Your task to perform on an android device: allow cookies in the chrome app Image 0: 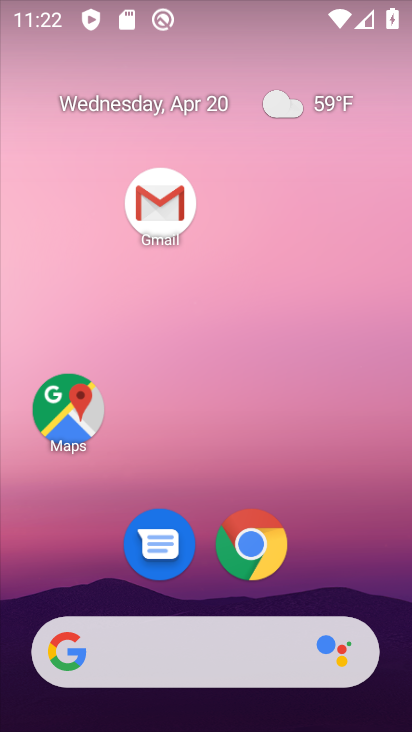
Step 0: click (268, 560)
Your task to perform on an android device: allow cookies in the chrome app Image 1: 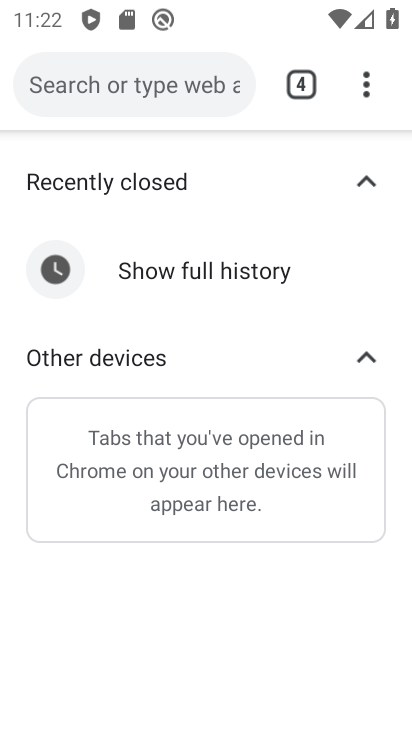
Step 1: click (379, 78)
Your task to perform on an android device: allow cookies in the chrome app Image 2: 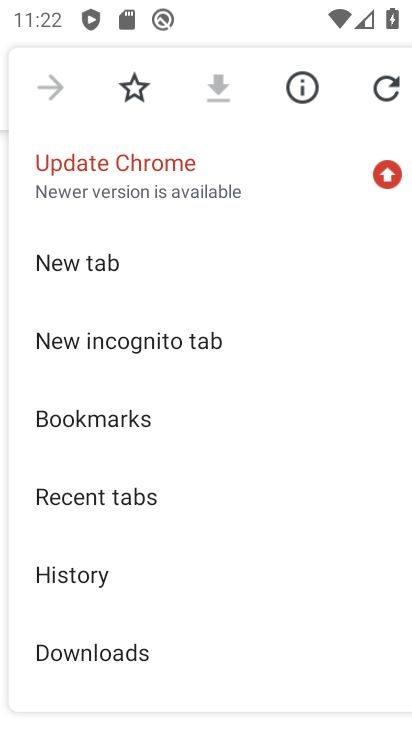
Step 2: drag from (235, 551) to (197, 67)
Your task to perform on an android device: allow cookies in the chrome app Image 3: 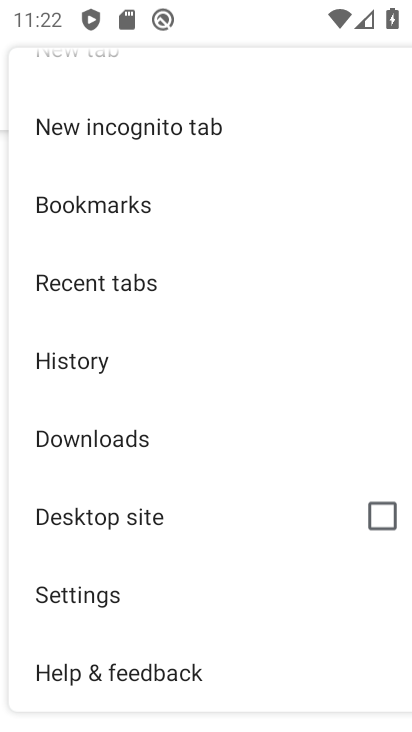
Step 3: click (131, 580)
Your task to perform on an android device: allow cookies in the chrome app Image 4: 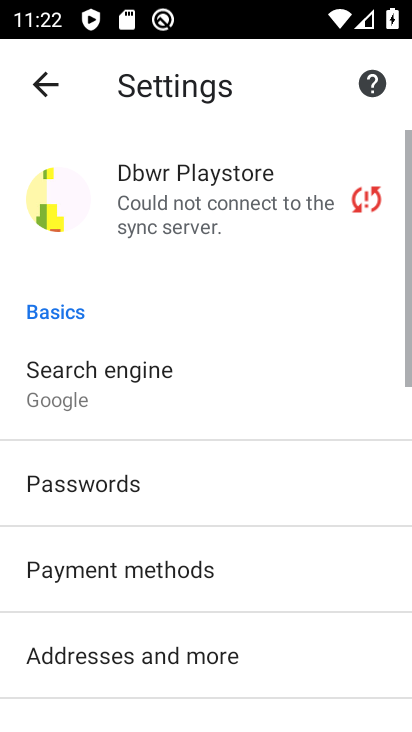
Step 4: drag from (137, 552) to (215, 104)
Your task to perform on an android device: allow cookies in the chrome app Image 5: 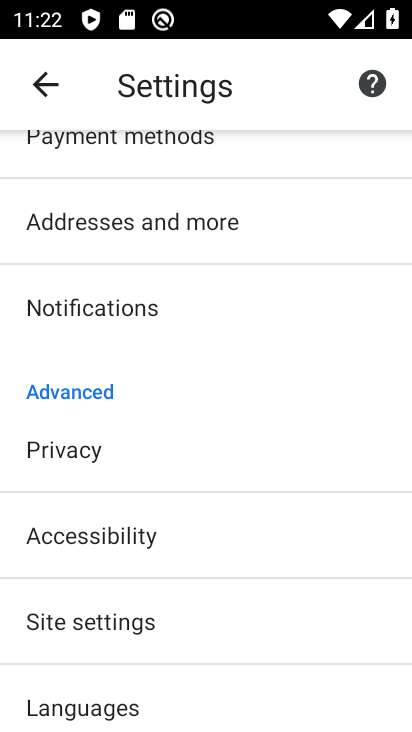
Step 5: drag from (191, 558) to (216, 335)
Your task to perform on an android device: allow cookies in the chrome app Image 6: 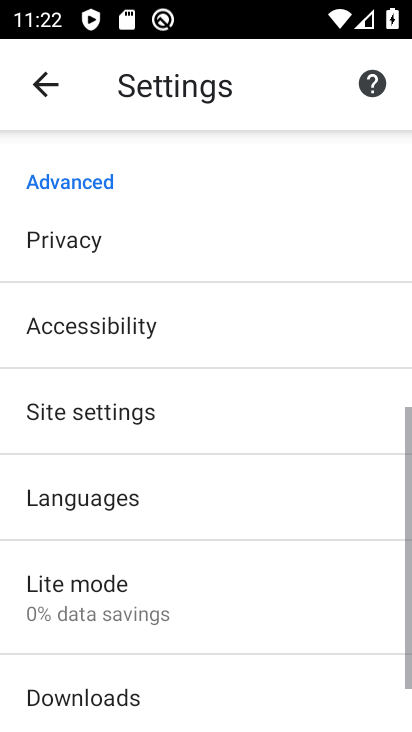
Step 6: click (143, 388)
Your task to perform on an android device: allow cookies in the chrome app Image 7: 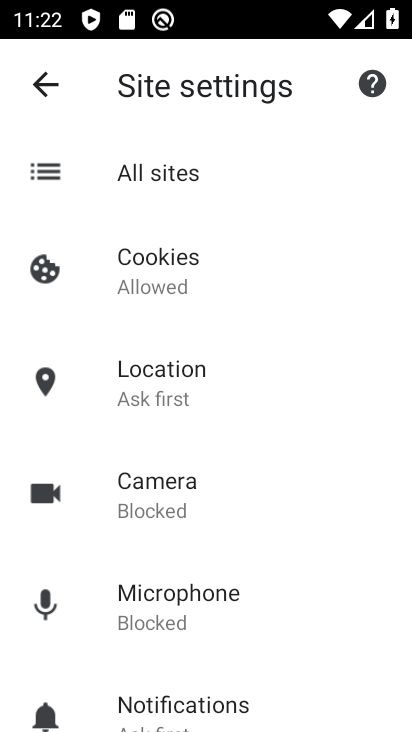
Step 7: click (202, 280)
Your task to perform on an android device: allow cookies in the chrome app Image 8: 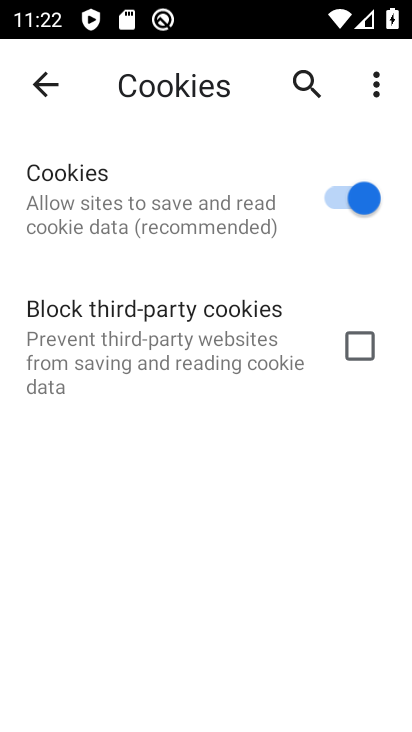
Step 8: task complete